Your task to perform on an android device: Open Chrome and go to settings Image 0: 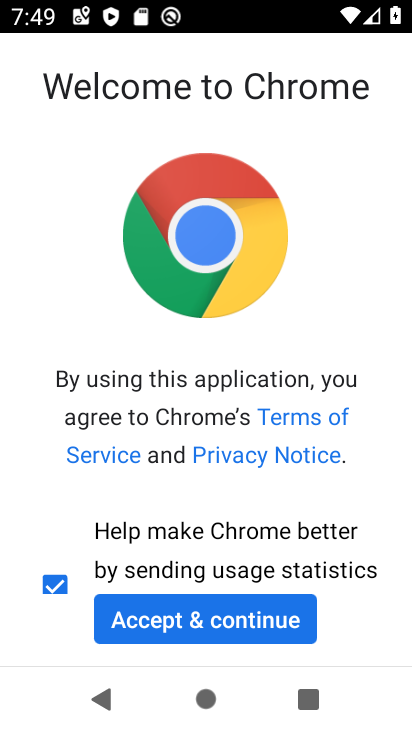
Step 0: click (202, 616)
Your task to perform on an android device: Open Chrome and go to settings Image 1: 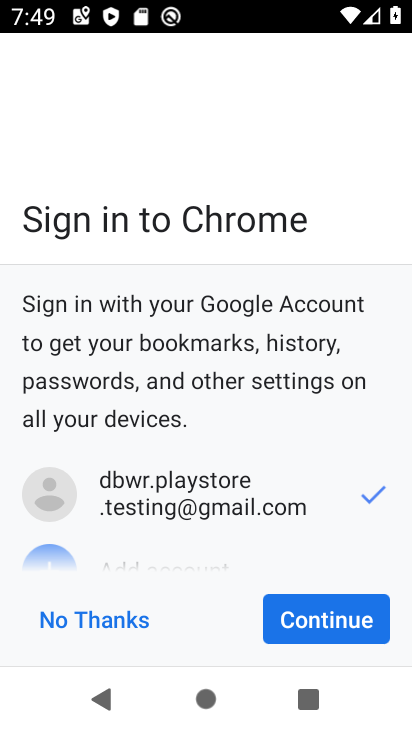
Step 1: click (312, 620)
Your task to perform on an android device: Open Chrome and go to settings Image 2: 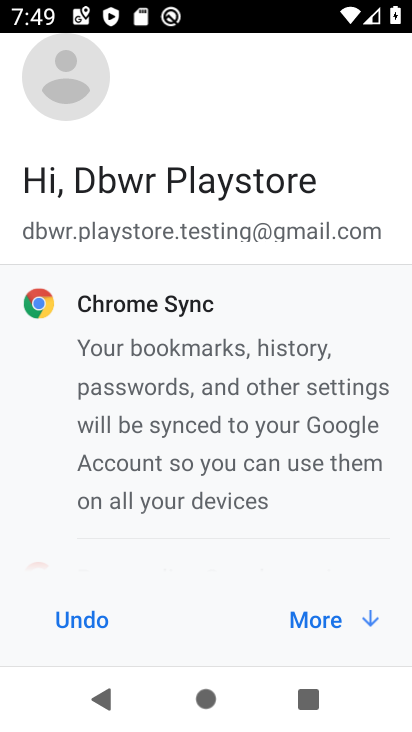
Step 2: click (325, 620)
Your task to perform on an android device: Open Chrome and go to settings Image 3: 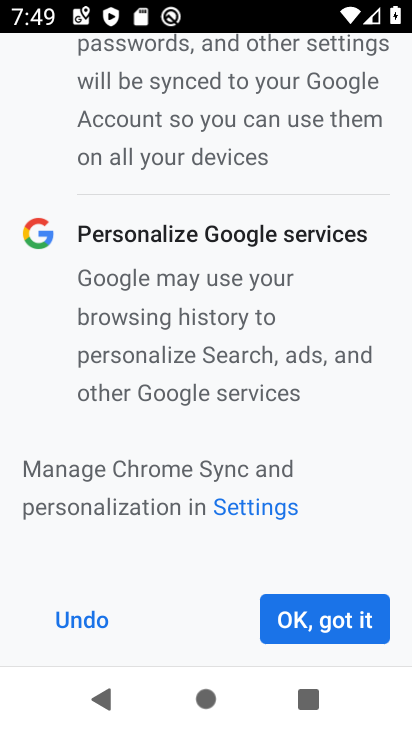
Step 3: click (325, 620)
Your task to perform on an android device: Open Chrome and go to settings Image 4: 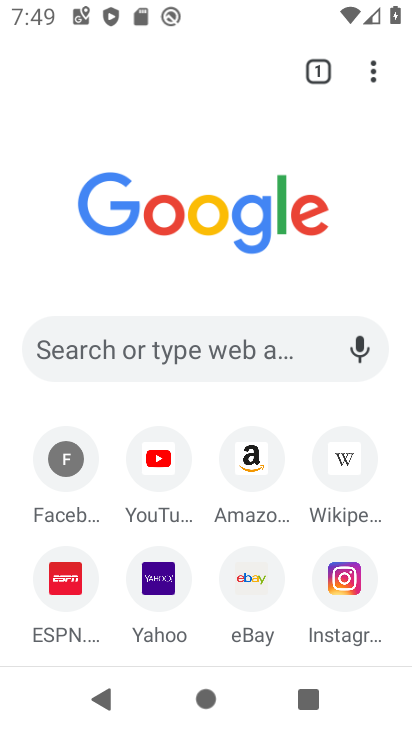
Step 4: click (370, 66)
Your task to perform on an android device: Open Chrome and go to settings Image 5: 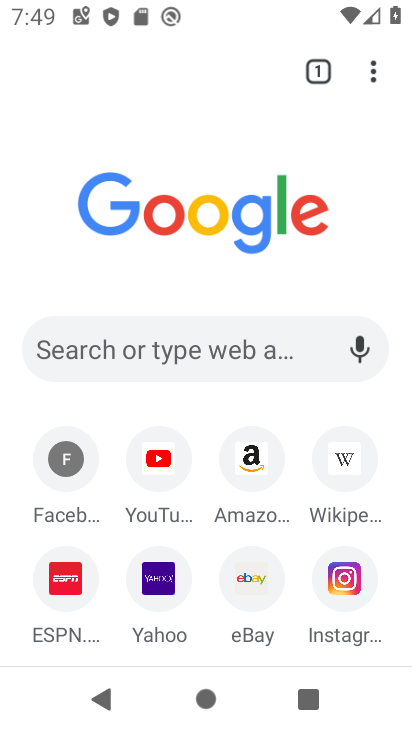
Step 5: click (379, 69)
Your task to perform on an android device: Open Chrome and go to settings Image 6: 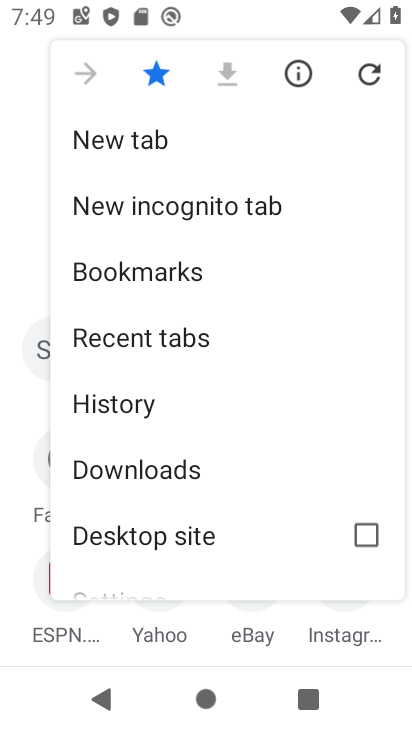
Step 6: drag from (226, 522) to (273, 174)
Your task to perform on an android device: Open Chrome and go to settings Image 7: 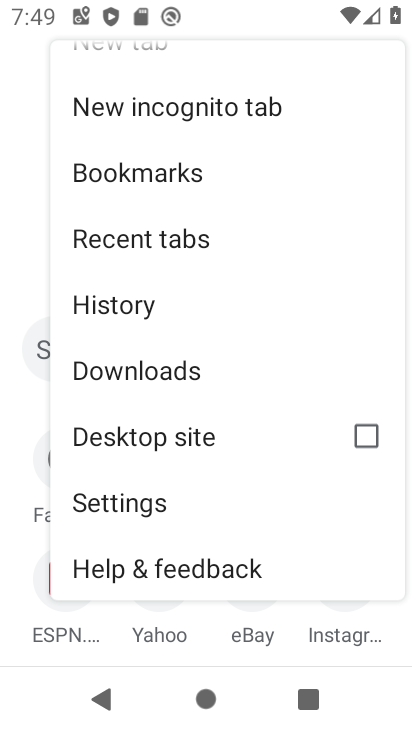
Step 7: click (177, 495)
Your task to perform on an android device: Open Chrome and go to settings Image 8: 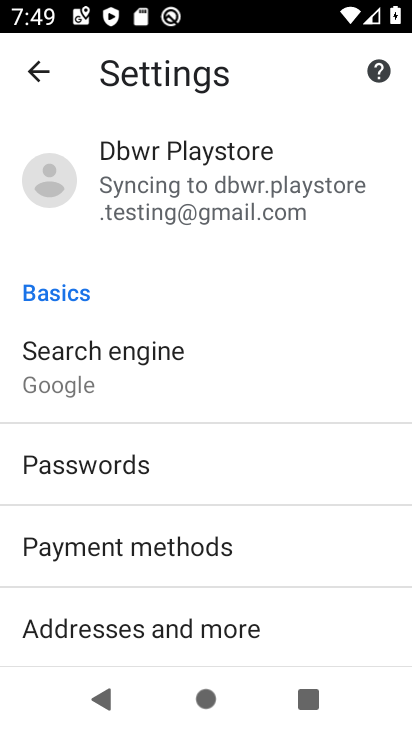
Step 8: task complete